Your task to perform on an android device: Toggle the flashlight Image 0: 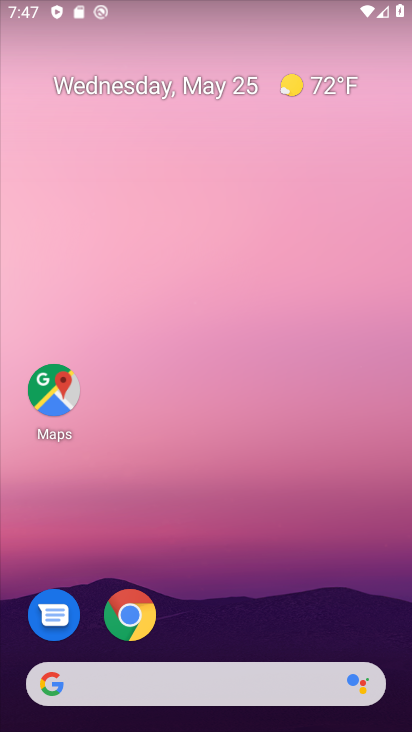
Step 0: drag from (225, 563) to (254, 29)
Your task to perform on an android device: Toggle the flashlight Image 1: 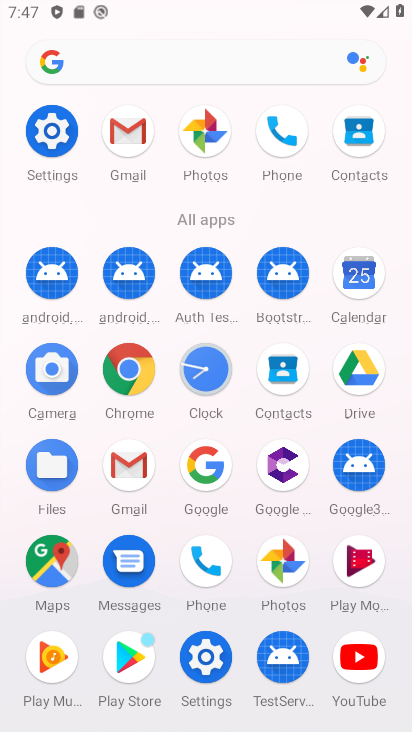
Step 1: click (48, 123)
Your task to perform on an android device: Toggle the flashlight Image 2: 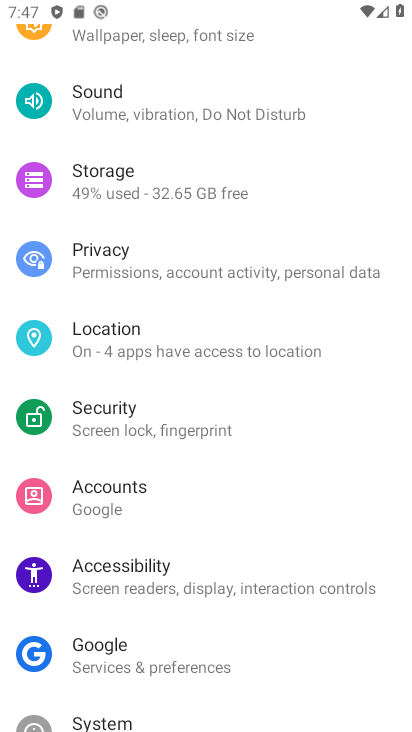
Step 2: drag from (241, 150) to (248, 633)
Your task to perform on an android device: Toggle the flashlight Image 3: 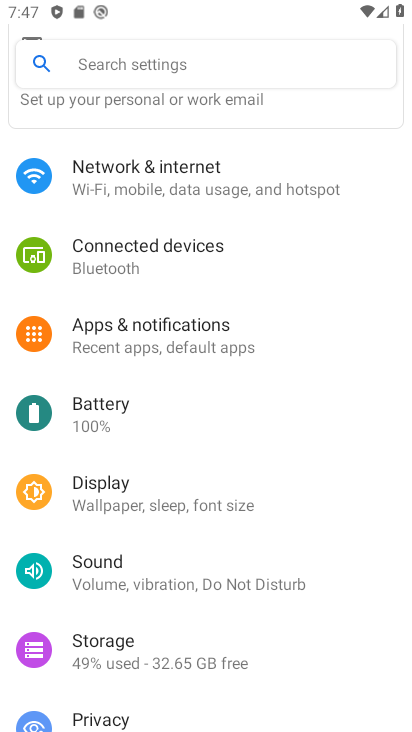
Step 3: drag from (227, 236) to (209, 600)
Your task to perform on an android device: Toggle the flashlight Image 4: 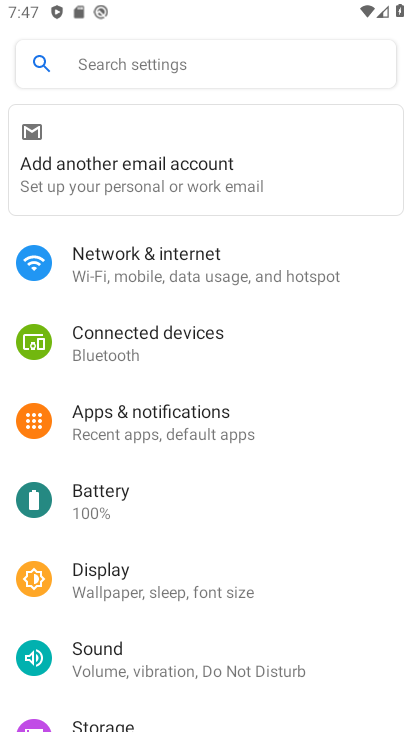
Step 4: click (227, 59)
Your task to perform on an android device: Toggle the flashlight Image 5: 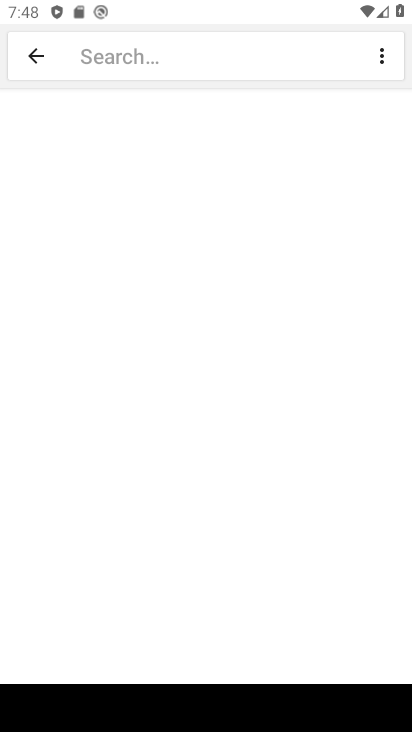
Step 5: type "Flashlight"
Your task to perform on an android device: Toggle the flashlight Image 6: 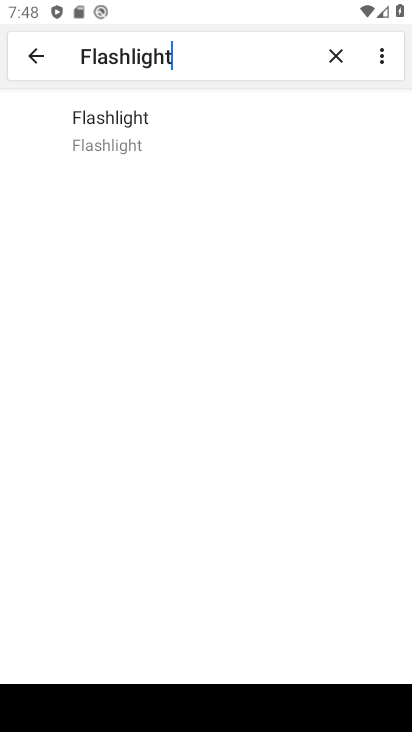
Step 6: click (113, 122)
Your task to perform on an android device: Toggle the flashlight Image 7: 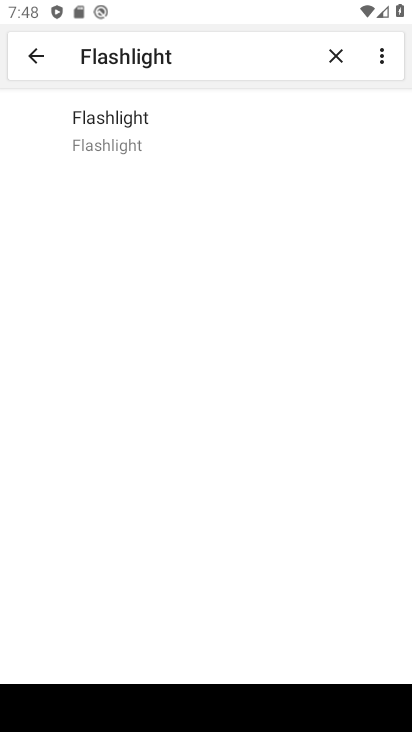
Step 7: task complete